Your task to perform on an android device: When is my next meeting? Image 0: 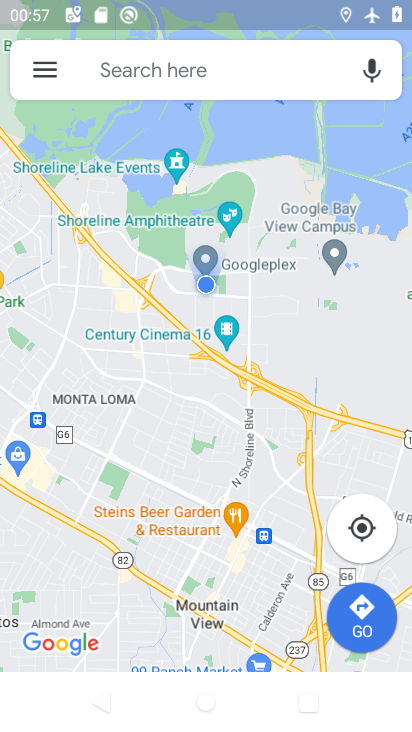
Step 0: press home button
Your task to perform on an android device: When is my next meeting? Image 1: 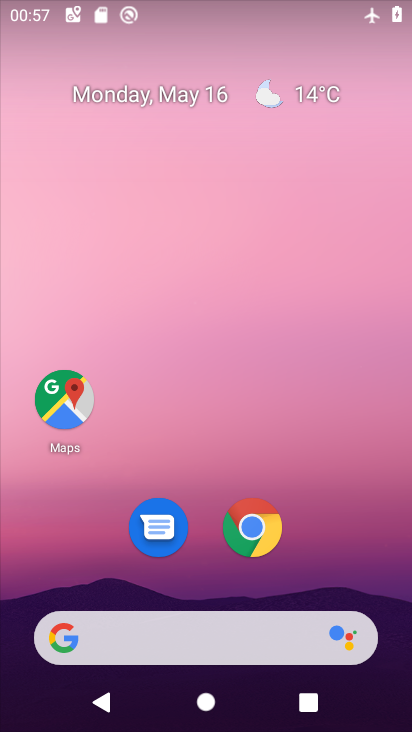
Step 1: drag from (200, 563) to (188, 10)
Your task to perform on an android device: When is my next meeting? Image 2: 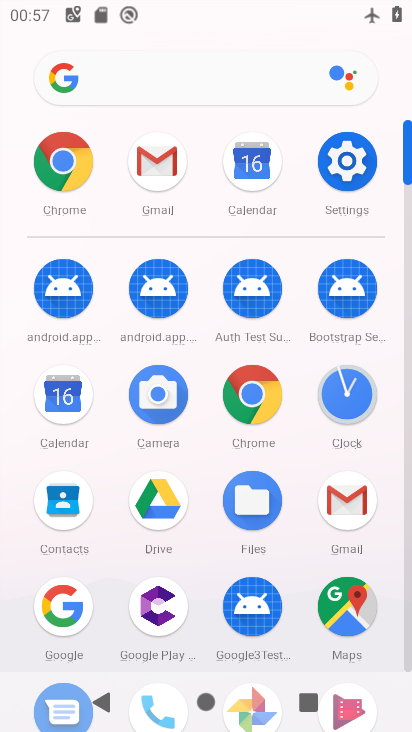
Step 2: click (67, 401)
Your task to perform on an android device: When is my next meeting? Image 3: 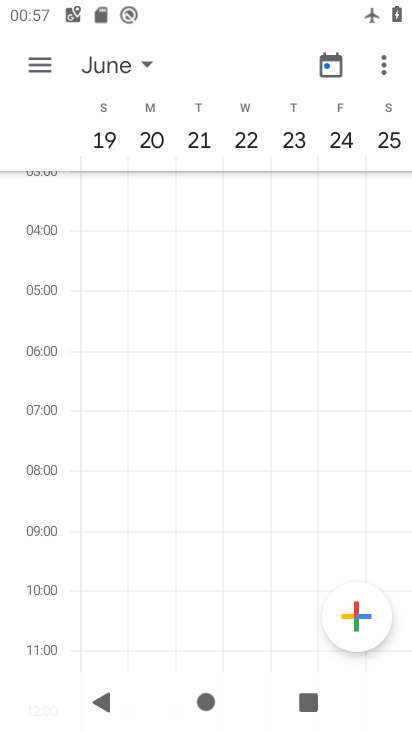
Step 3: drag from (137, 155) to (402, 128)
Your task to perform on an android device: When is my next meeting? Image 4: 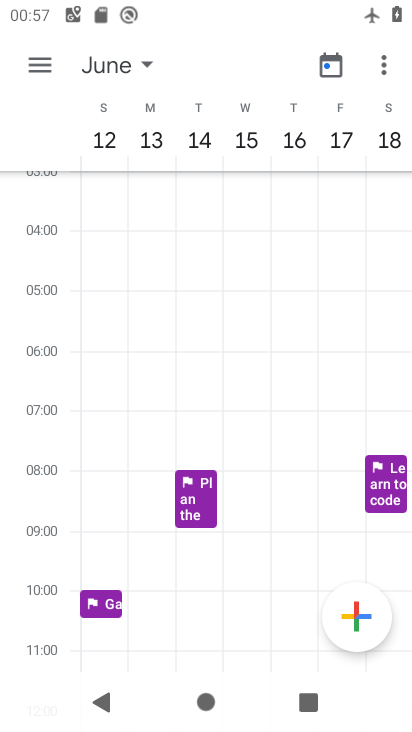
Step 4: click (117, 70)
Your task to perform on an android device: When is my next meeting? Image 5: 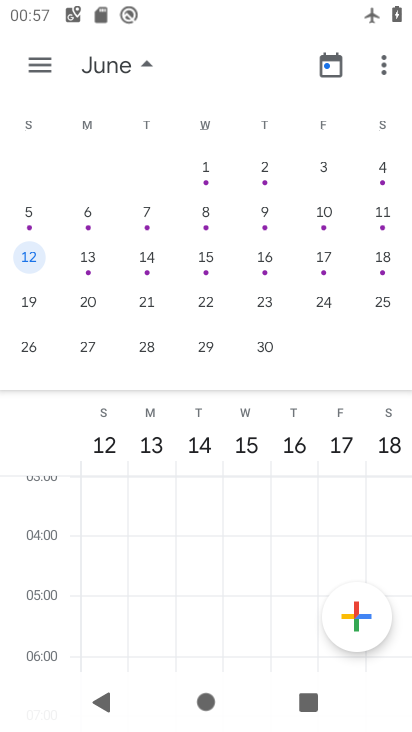
Step 5: drag from (34, 233) to (373, 264)
Your task to perform on an android device: When is my next meeting? Image 6: 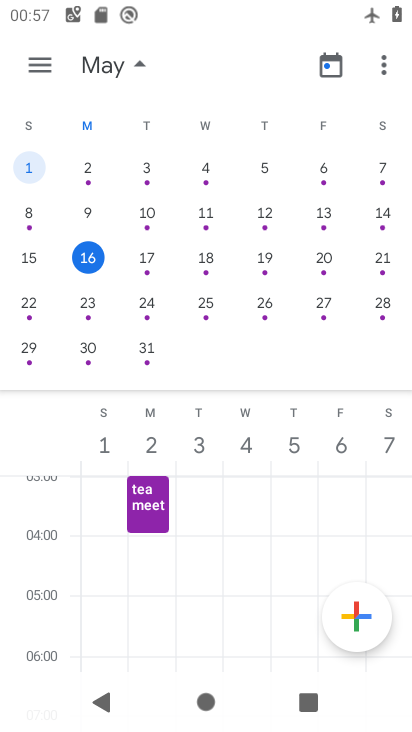
Step 6: click (101, 258)
Your task to perform on an android device: When is my next meeting? Image 7: 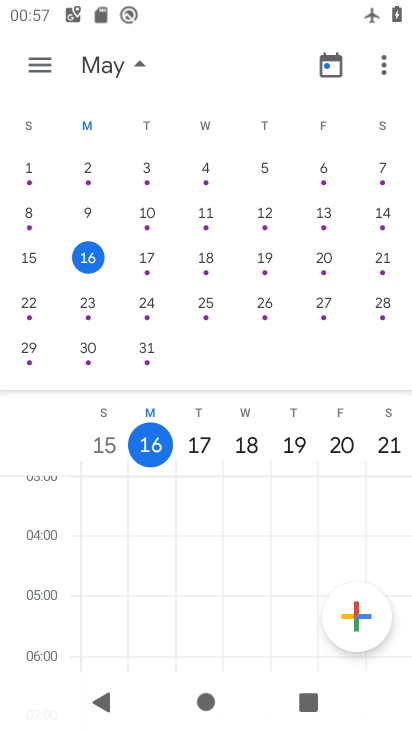
Step 7: click (46, 61)
Your task to perform on an android device: When is my next meeting? Image 8: 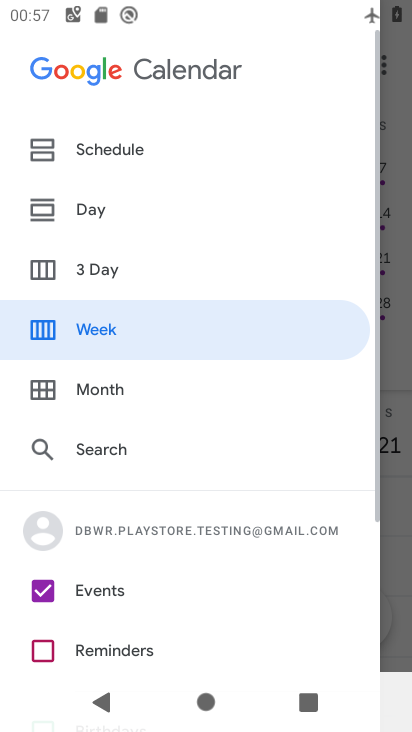
Step 8: click (41, 59)
Your task to perform on an android device: When is my next meeting? Image 9: 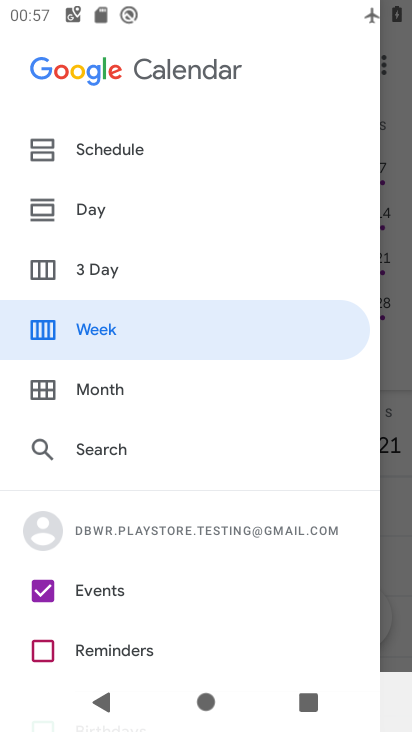
Step 9: click (109, 155)
Your task to perform on an android device: When is my next meeting? Image 10: 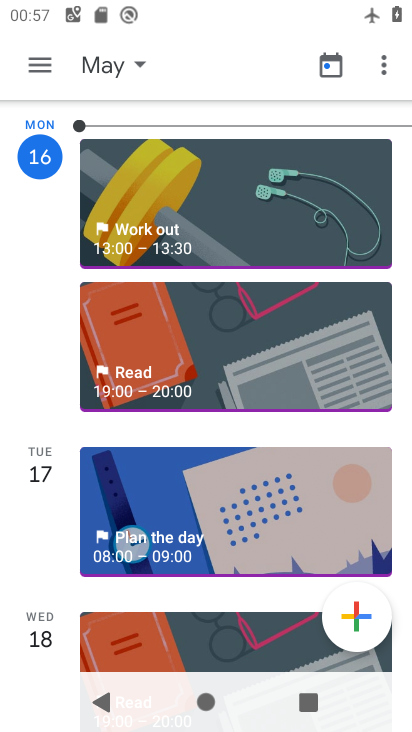
Step 10: click (47, 63)
Your task to perform on an android device: When is my next meeting? Image 11: 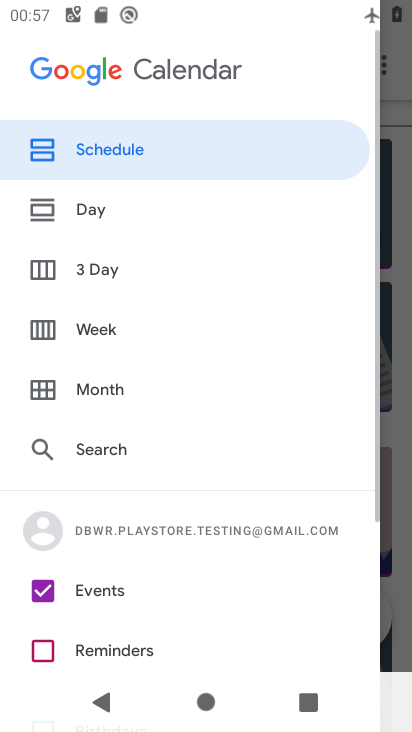
Step 11: drag from (153, 609) to (215, 263)
Your task to perform on an android device: When is my next meeting? Image 12: 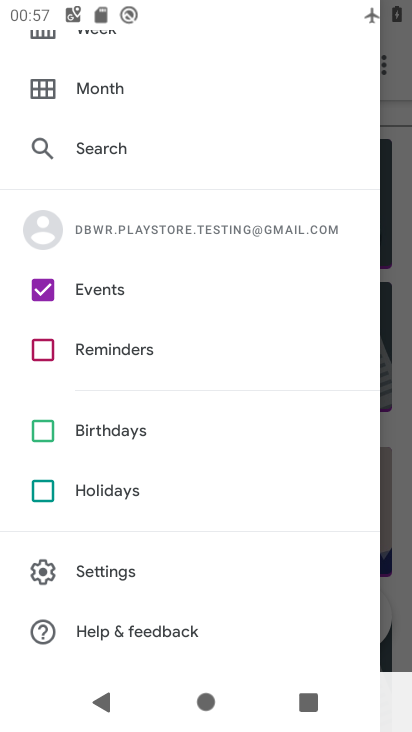
Step 12: click (50, 351)
Your task to perform on an android device: When is my next meeting? Image 13: 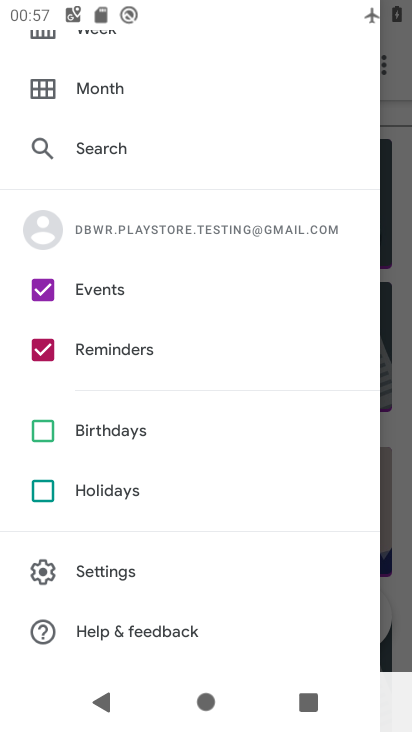
Step 13: click (78, 297)
Your task to perform on an android device: When is my next meeting? Image 14: 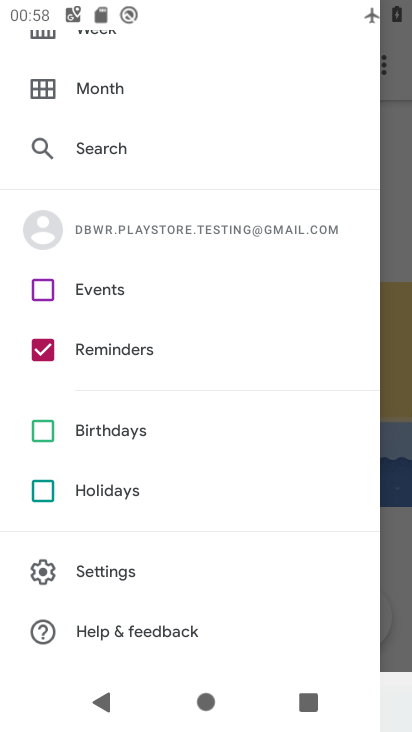
Step 14: task complete